Your task to perform on an android device: What's the weather today? Image 0: 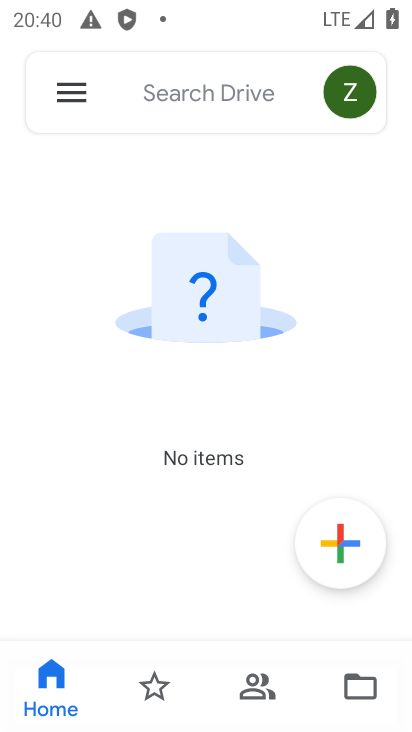
Step 0: press back button
Your task to perform on an android device: What's the weather today? Image 1: 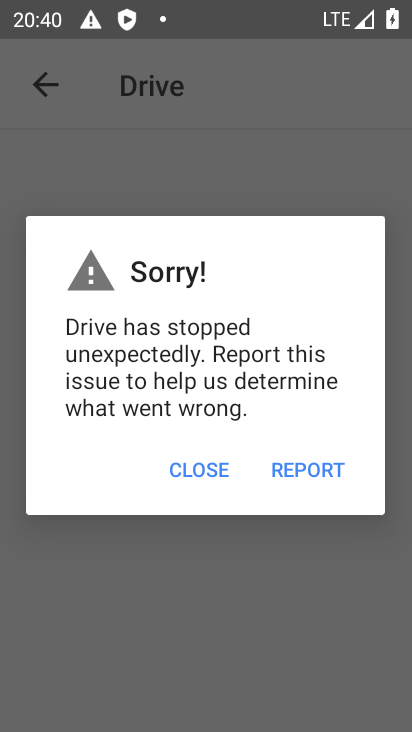
Step 1: press home button
Your task to perform on an android device: What's the weather today? Image 2: 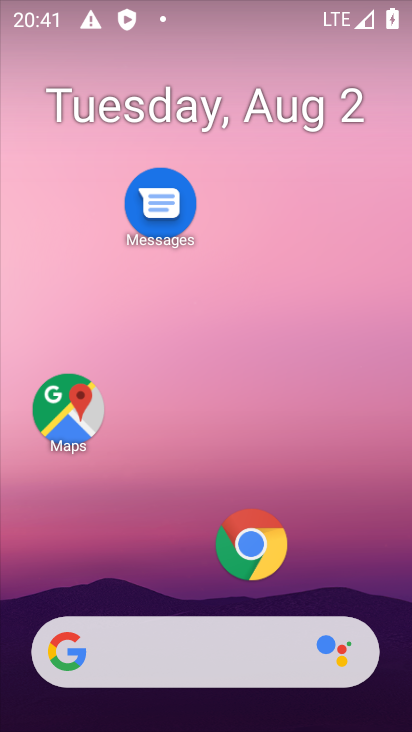
Step 2: drag from (176, 559) to (236, 130)
Your task to perform on an android device: What's the weather today? Image 3: 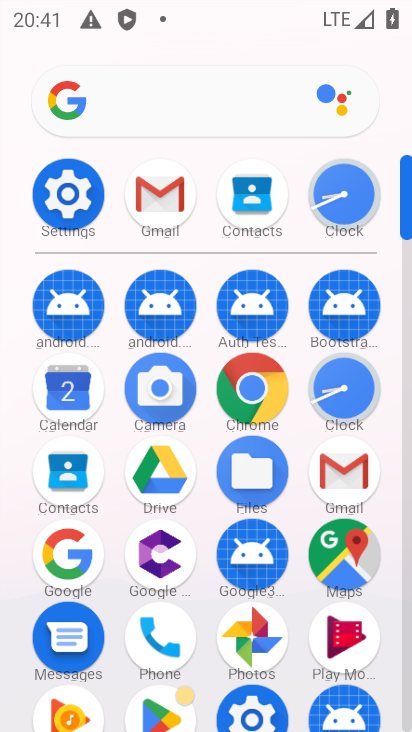
Step 3: click (76, 539)
Your task to perform on an android device: What's the weather today? Image 4: 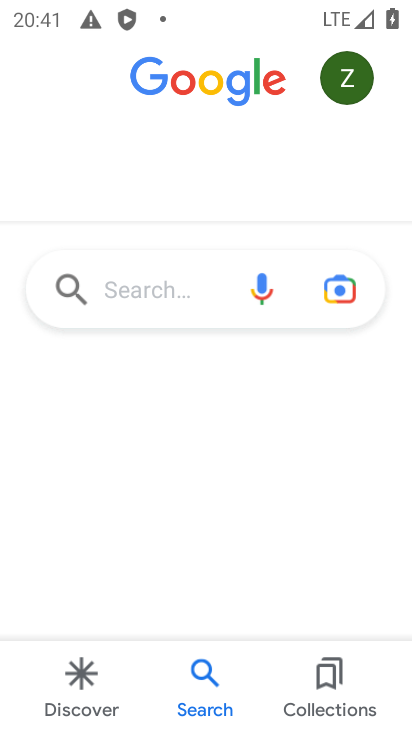
Step 4: click (148, 297)
Your task to perform on an android device: What's the weather today? Image 5: 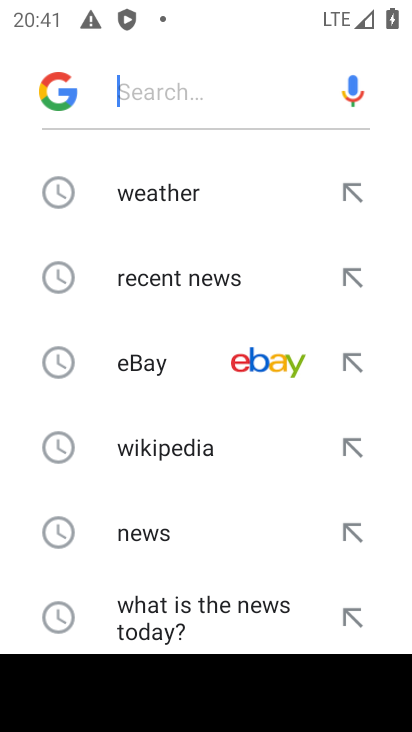
Step 5: click (183, 217)
Your task to perform on an android device: What's the weather today? Image 6: 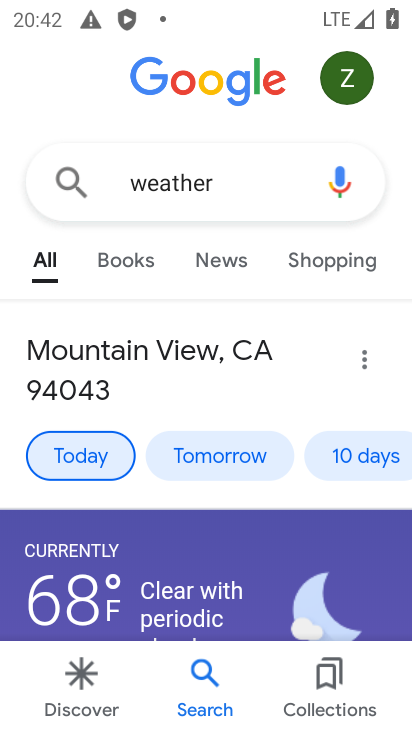
Step 6: task complete